Your task to perform on an android device: Open the map Image 0: 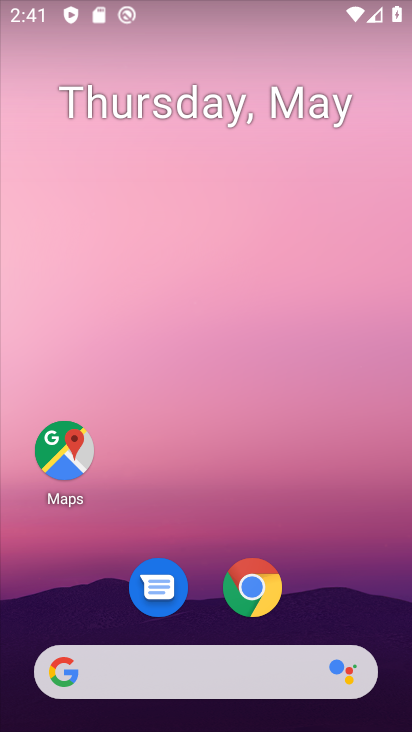
Step 0: click (68, 457)
Your task to perform on an android device: Open the map Image 1: 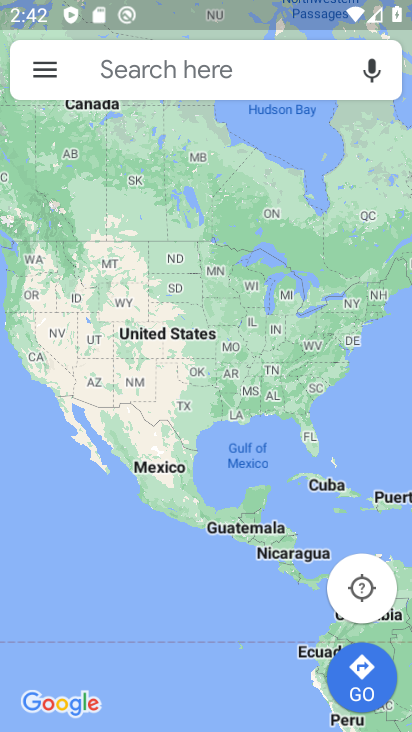
Step 1: task complete